Your task to perform on an android device: turn pop-ups off in chrome Image 0: 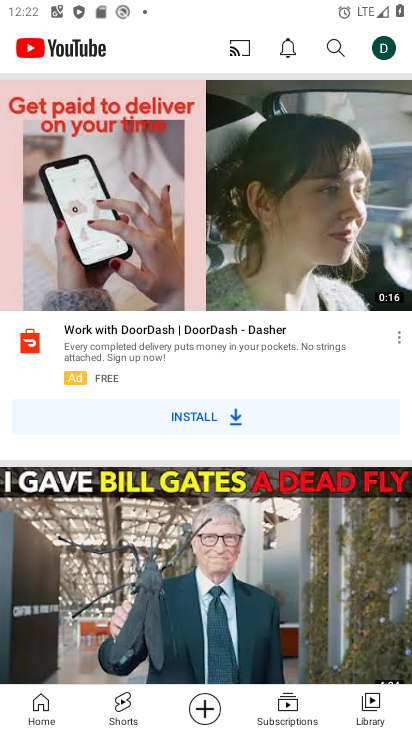
Step 0: press home button
Your task to perform on an android device: turn pop-ups off in chrome Image 1: 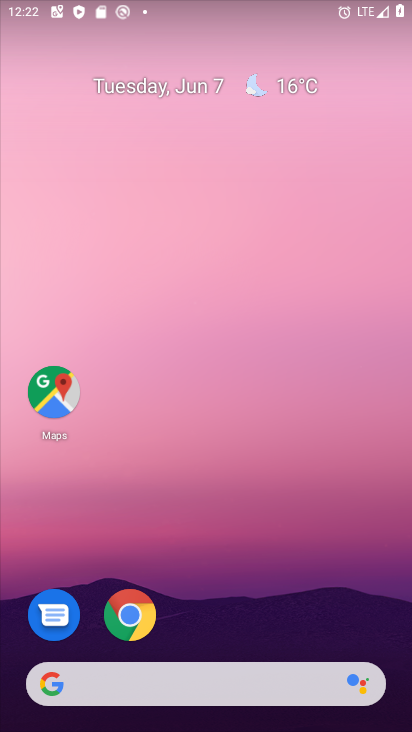
Step 1: click (130, 610)
Your task to perform on an android device: turn pop-ups off in chrome Image 2: 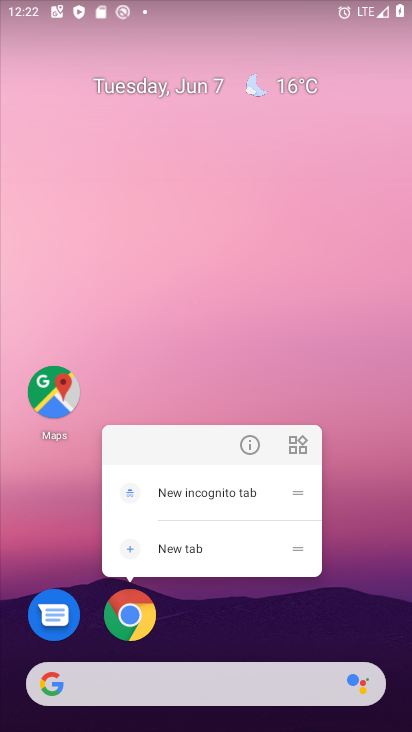
Step 2: click (125, 612)
Your task to perform on an android device: turn pop-ups off in chrome Image 3: 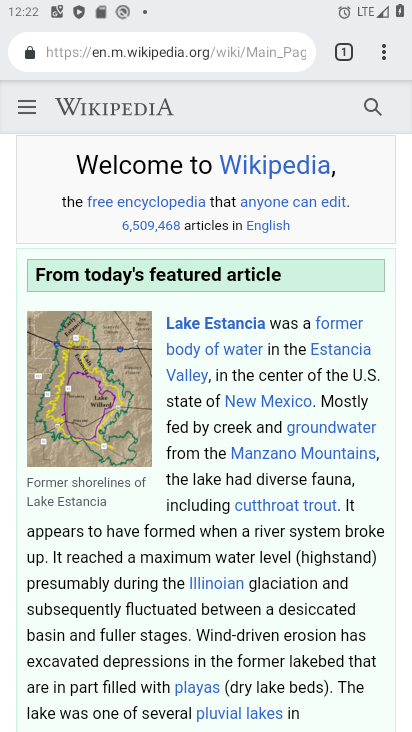
Step 3: click (390, 46)
Your task to perform on an android device: turn pop-ups off in chrome Image 4: 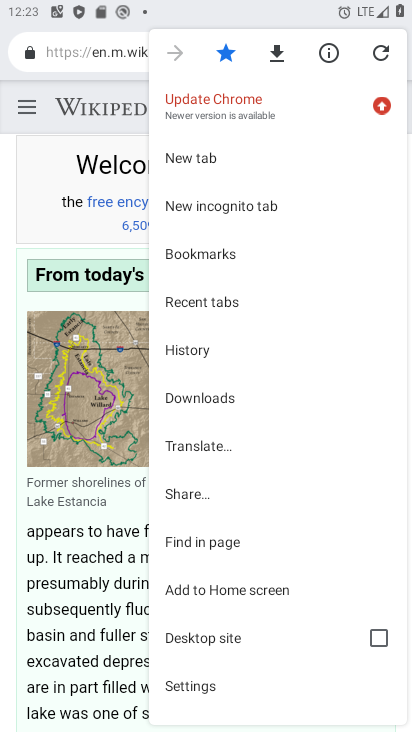
Step 4: click (239, 683)
Your task to perform on an android device: turn pop-ups off in chrome Image 5: 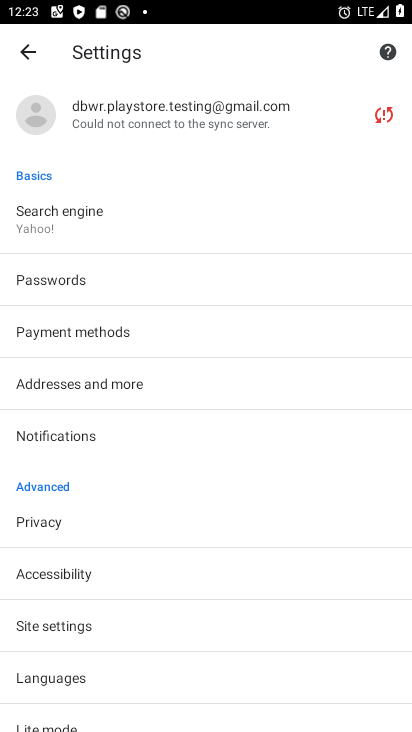
Step 5: click (108, 625)
Your task to perform on an android device: turn pop-ups off in chrome Image 6: 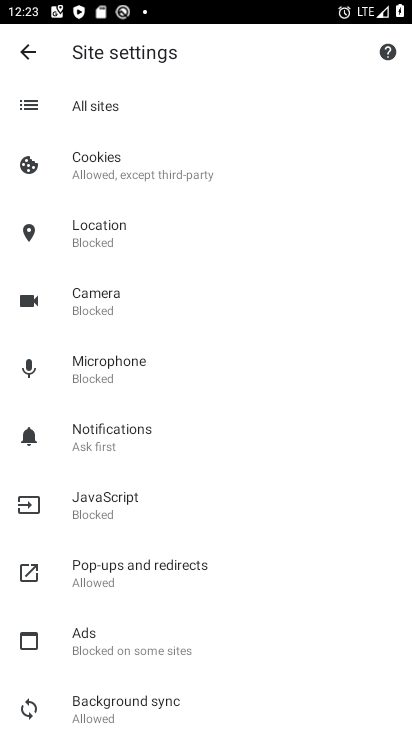
Step 6: click (172, 572)
Your task to perform on an android device: turn pop-ups off in chrome Image 7: 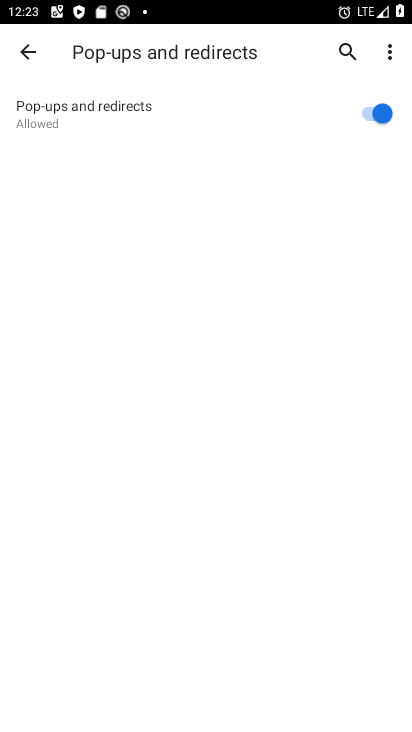
Step 7: click (375, 109)
Your task to perform on an android device: turn pop-ups off in chrome Image 8: 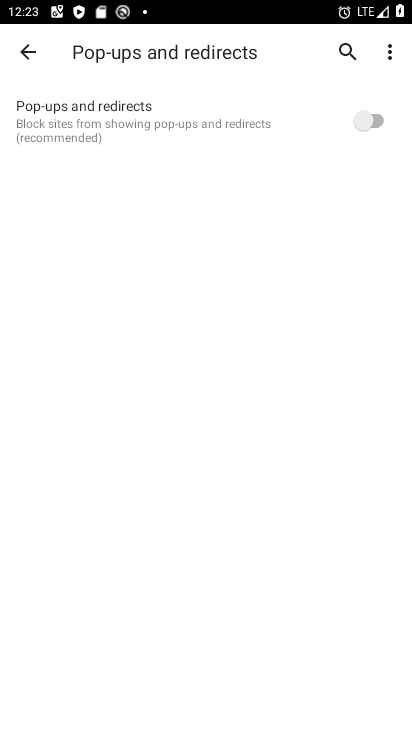
Step 8: task complete